Your task to perform on an android device: Go to ESPN.com Image 0: 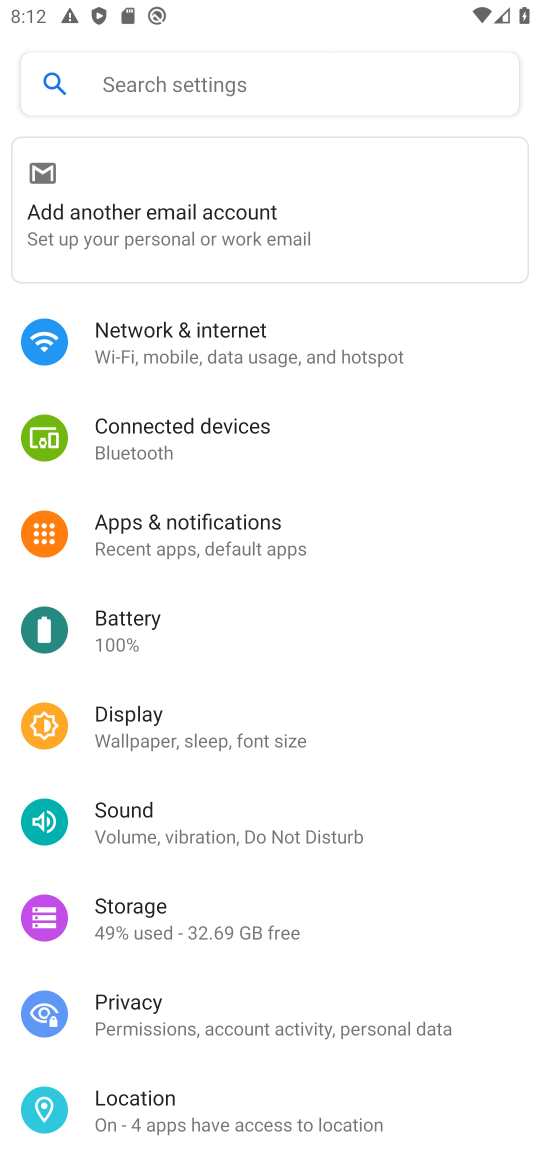
Step 0: press home button
Your task to perform on an android device: Go to ESPN.com Image 1: 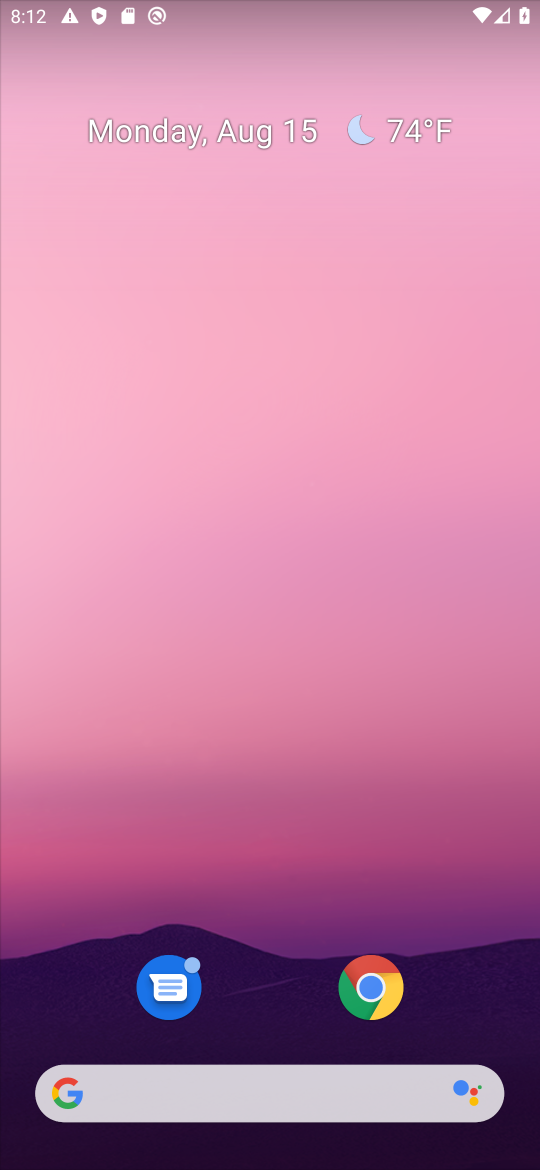
Step 1: click (371, 994)
Your task to perform on an android device: Go to ESPN.com Image 2: 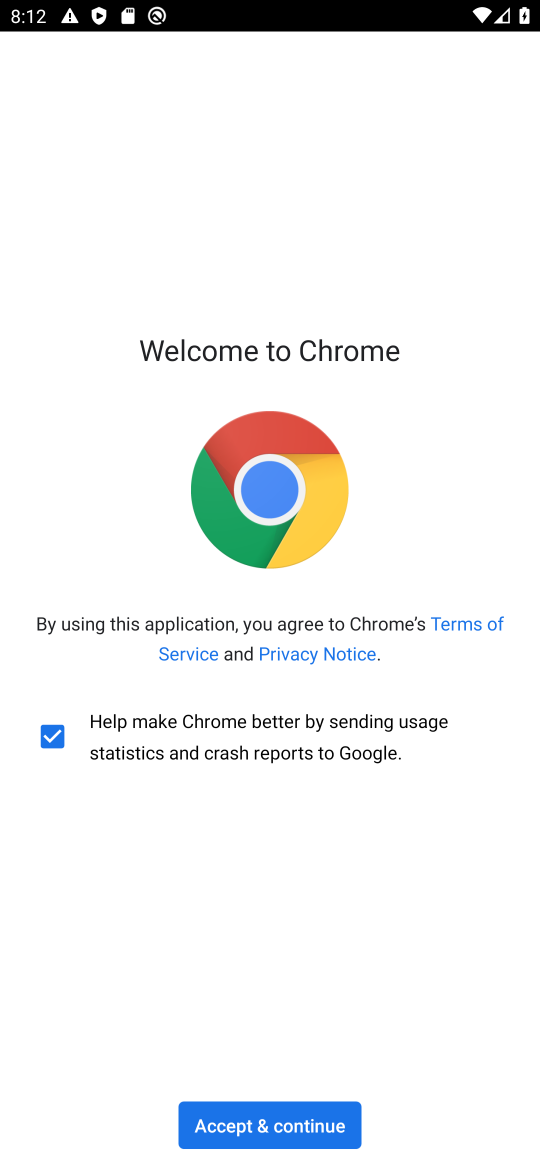
Step 2: click (286, 1137)
Your task to perform on an android device: Go to ESPN.com Image 3: 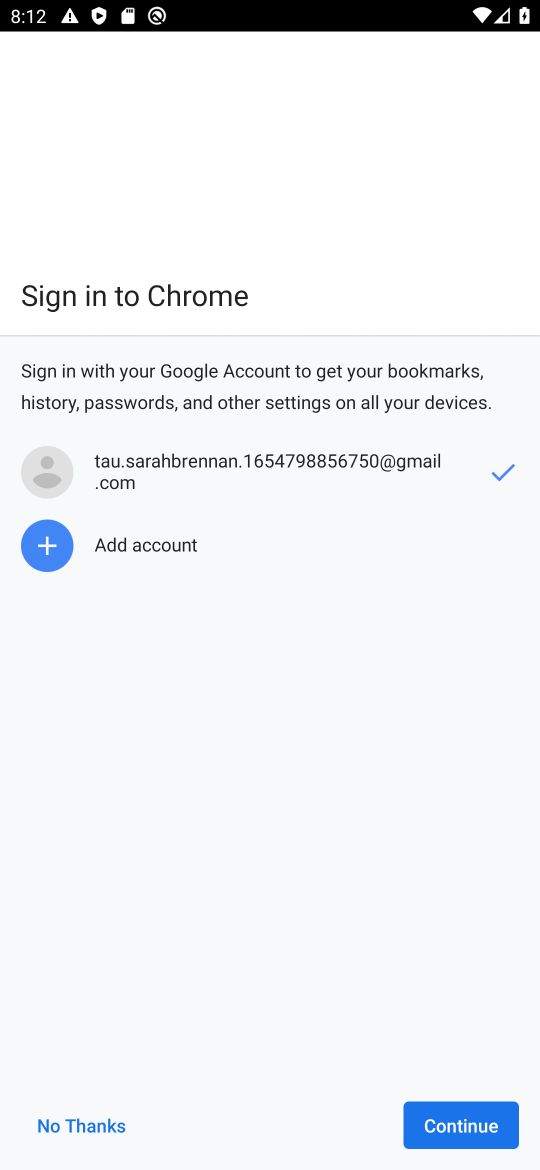
Step 3: click (454, 1139)
Your task to perform on an android device: Go to ESPN.com Image 4: 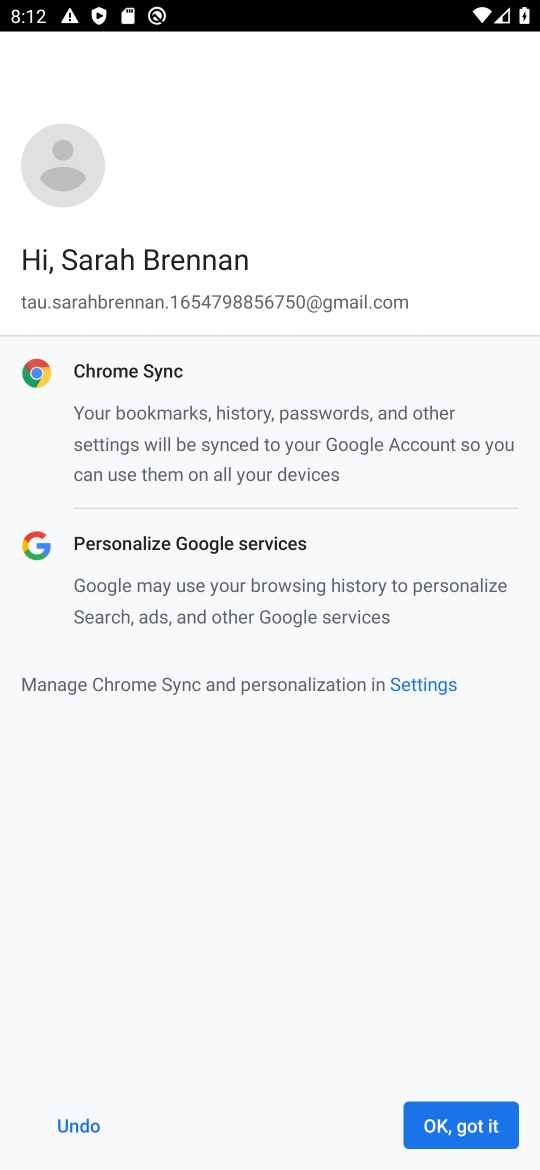
Step 4: click (454, 1139)
Your task to perform on an android device: Go to ESPN.com Image 5: 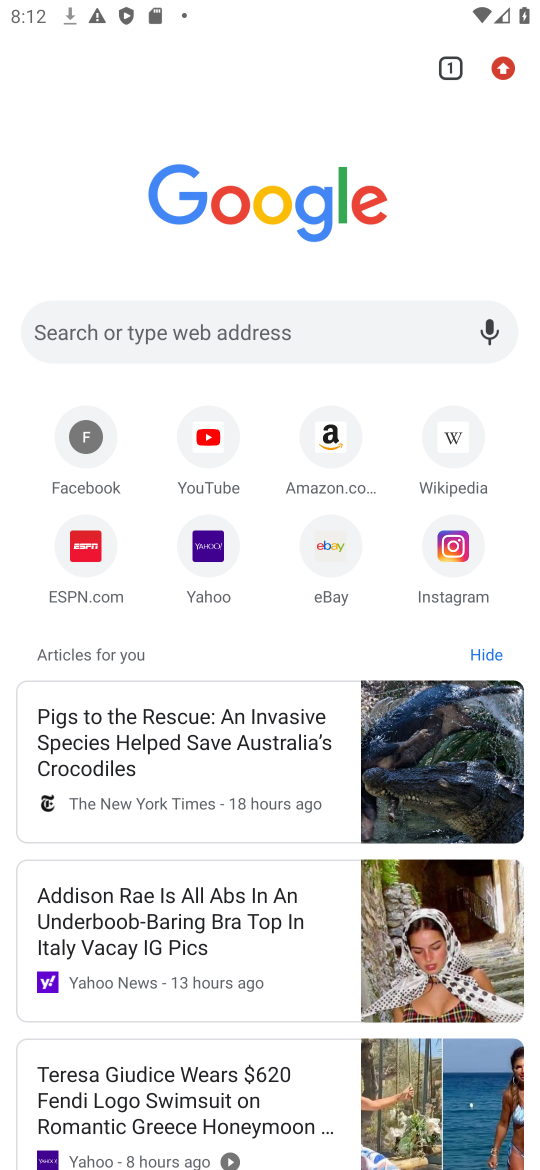
Step 5: click (93, 545)
Your task to perform on an android device: Go to ESPN.com Image 6: 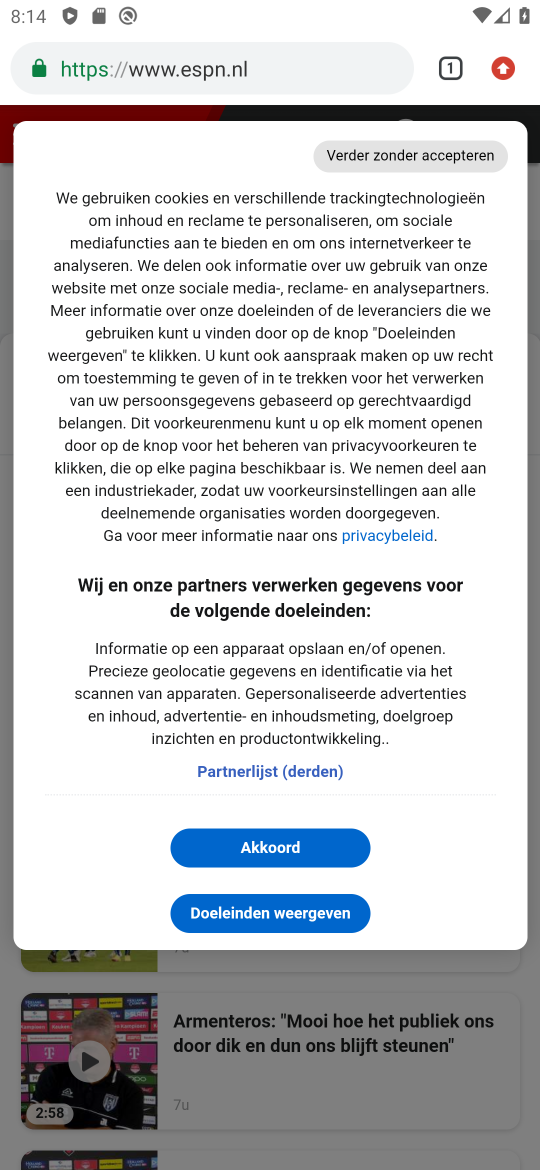
Step 6: task complete